Your task to perform on an android device: Search for the new Nintendo switch on Walmart. Image 0: 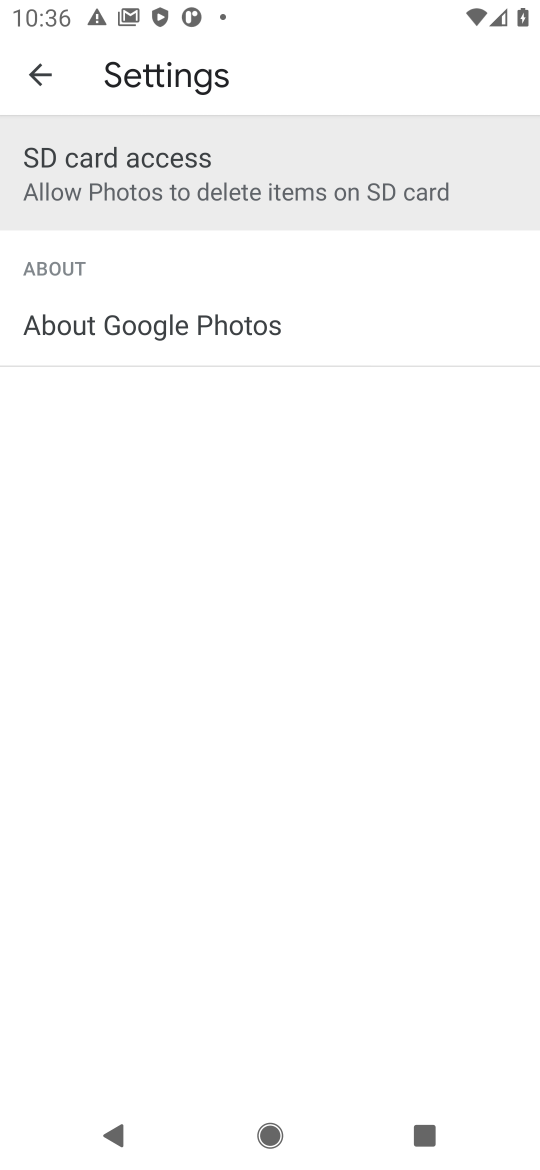
Step 0: press home button
Your task to perform on an android device: Search for the new Nintendo switch on Walmart. Image 1: 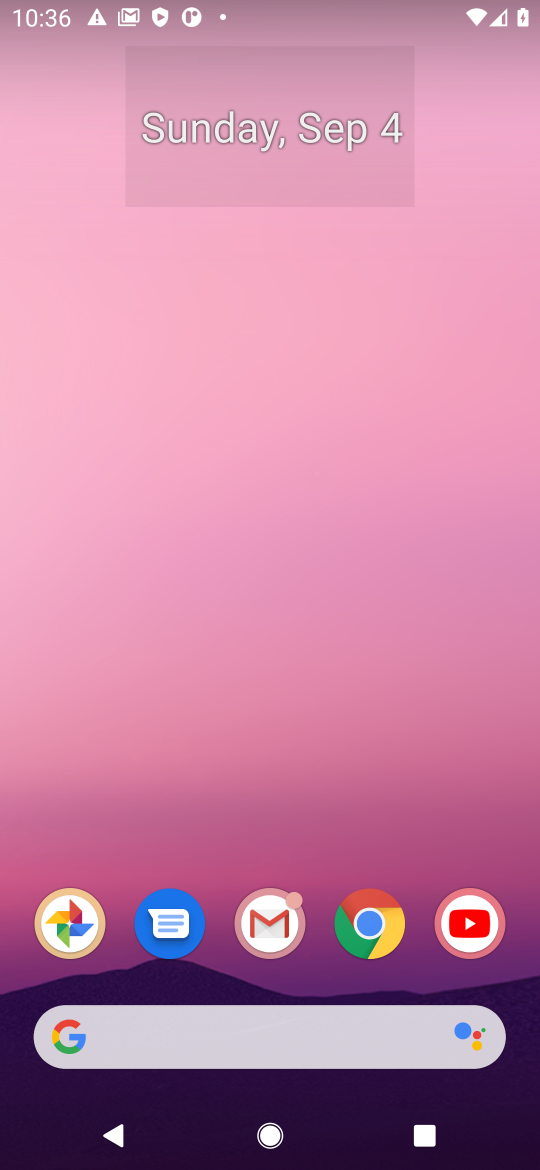
Step 1: click (386, 1038)
Your task to perform on an android device: Search for the new Nintendo switch on Walmart. Image 2: 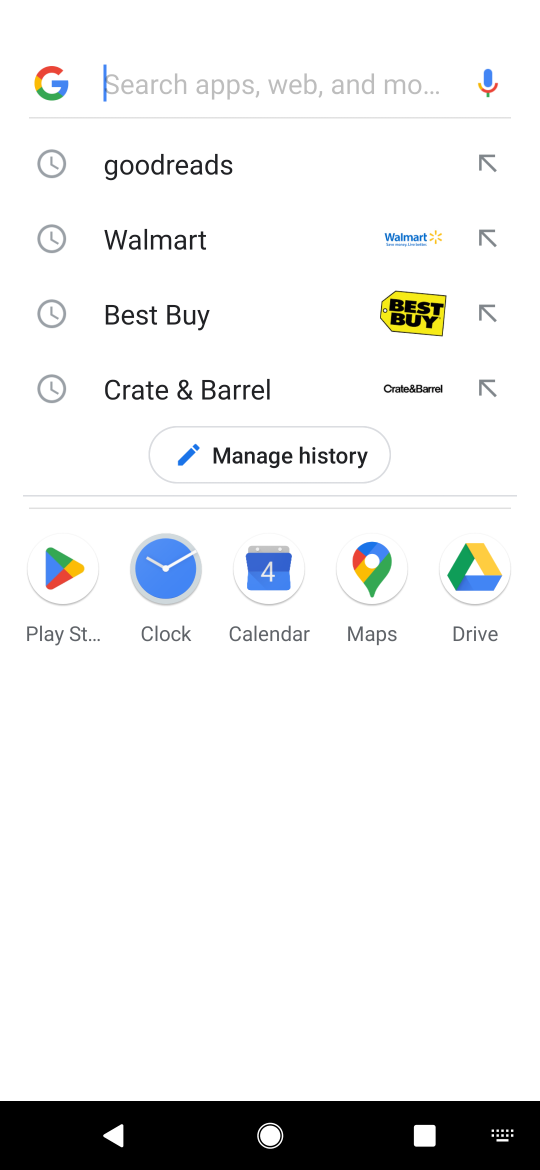
Step 2: press enter
Your task to perform on an android device: Search for the new Nintendo switch on Walmart. Image 3: 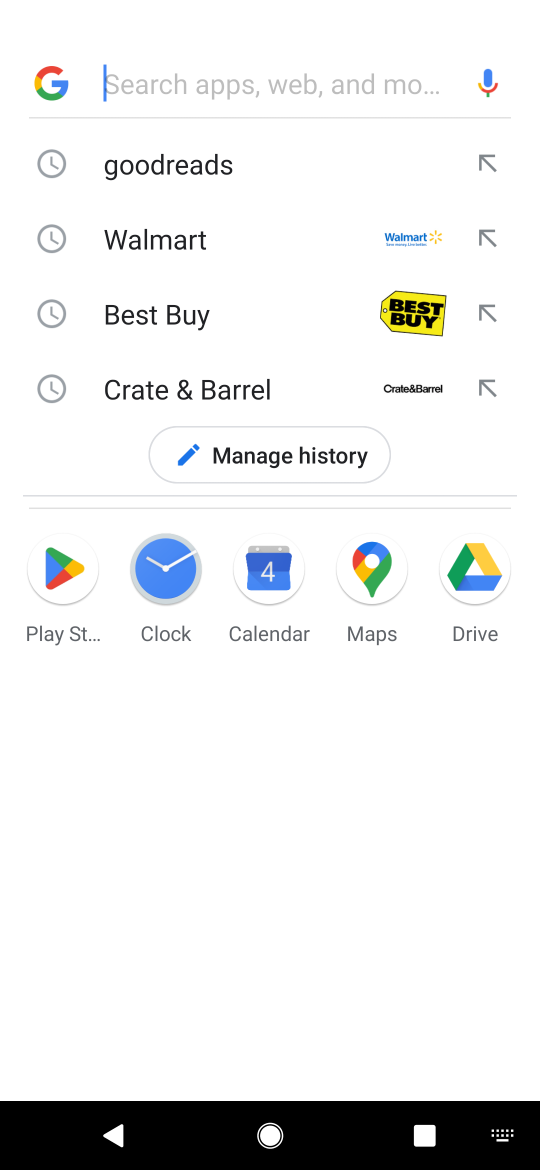
Step 3: type "walmart"
Your task to perform on an android device: Search for the new Nintendo switch on Walmart. Image 4: 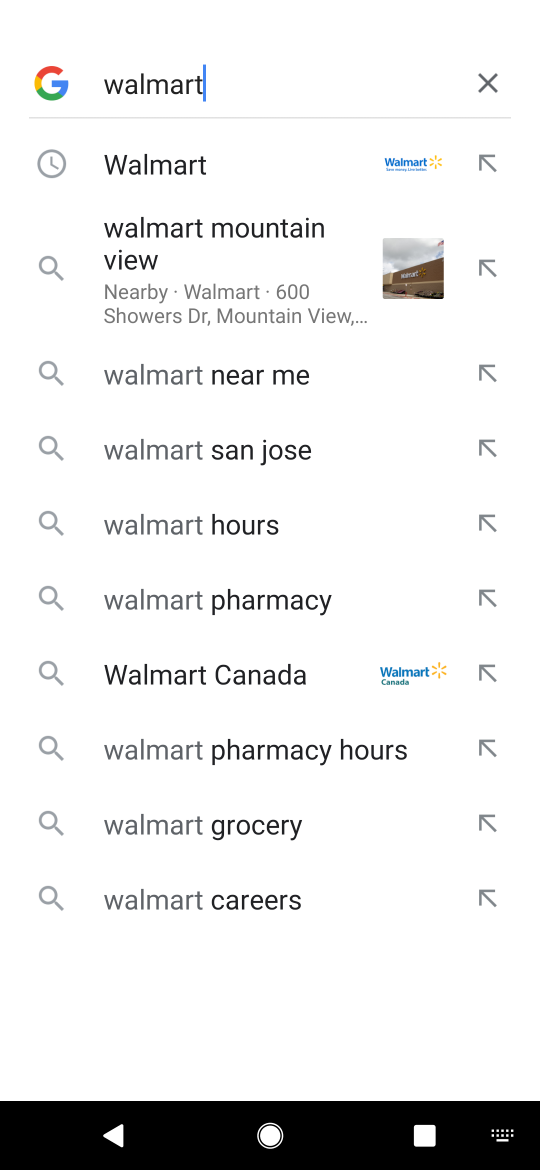
Step 4: click (150, 166)
Your task to perform on an android device: Search for the new Nintendo switch on Walmart. Image 5: 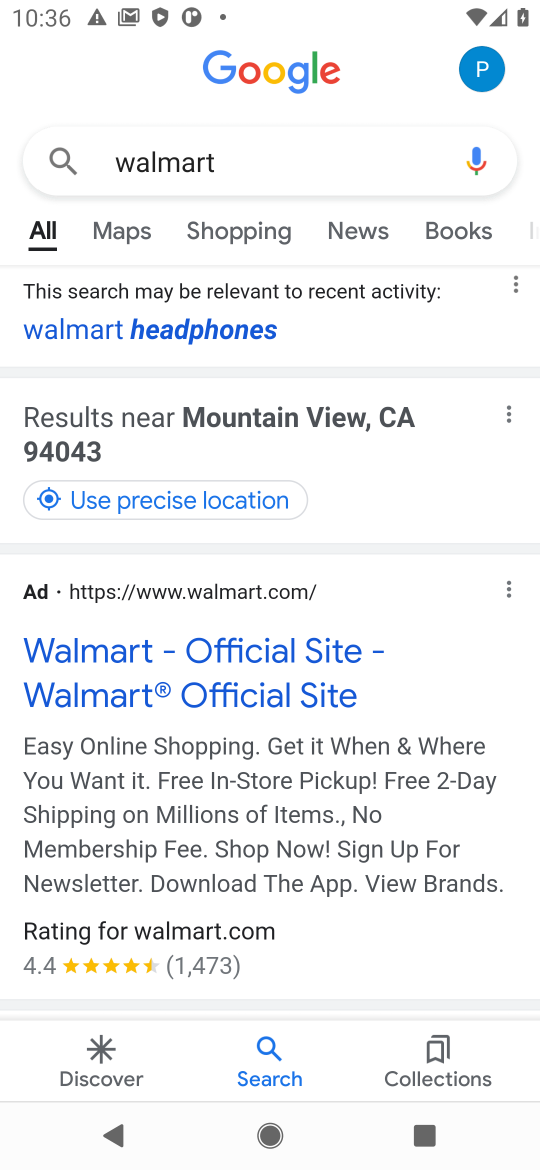
Step 5: click (161, 668)
Your task to perform on an android device: Search for the new Nintendo switch on Walmart. Image 6: 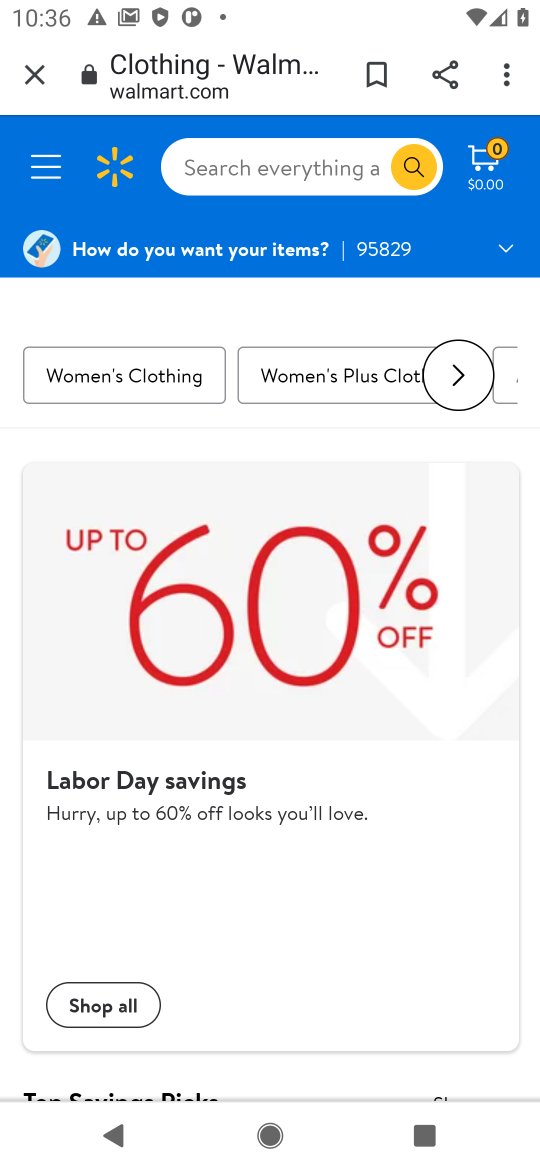
Step 6: click (260, 145)
Your task to perform on an android device: Search for the new Nintendo switch on Walmart. Image 7: 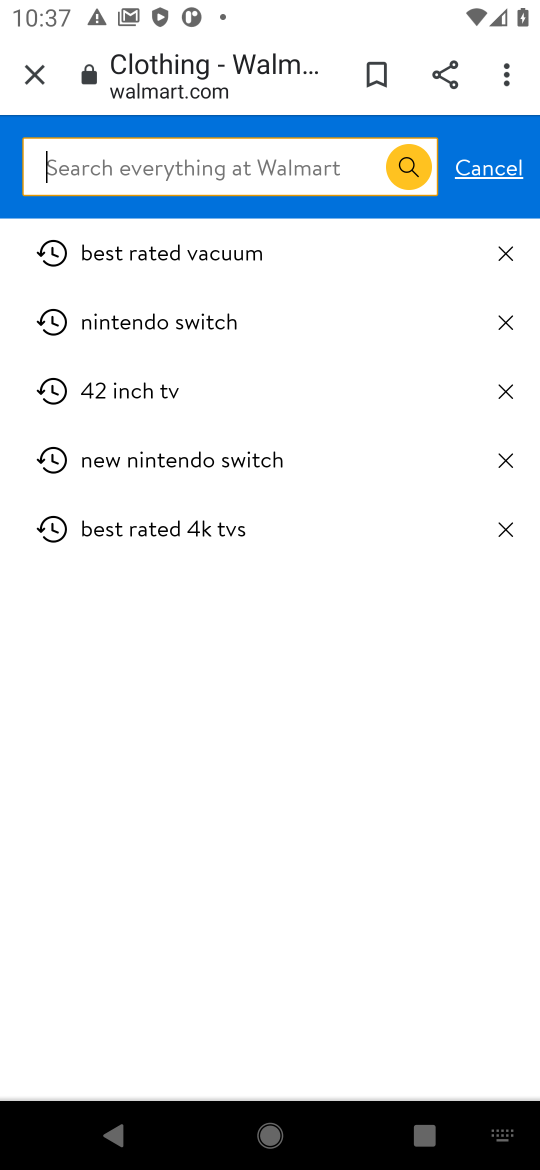
Step 7: press enter
Your task to perform on an android device: Search for the new Nintendo switch on Walmart. Image 8: 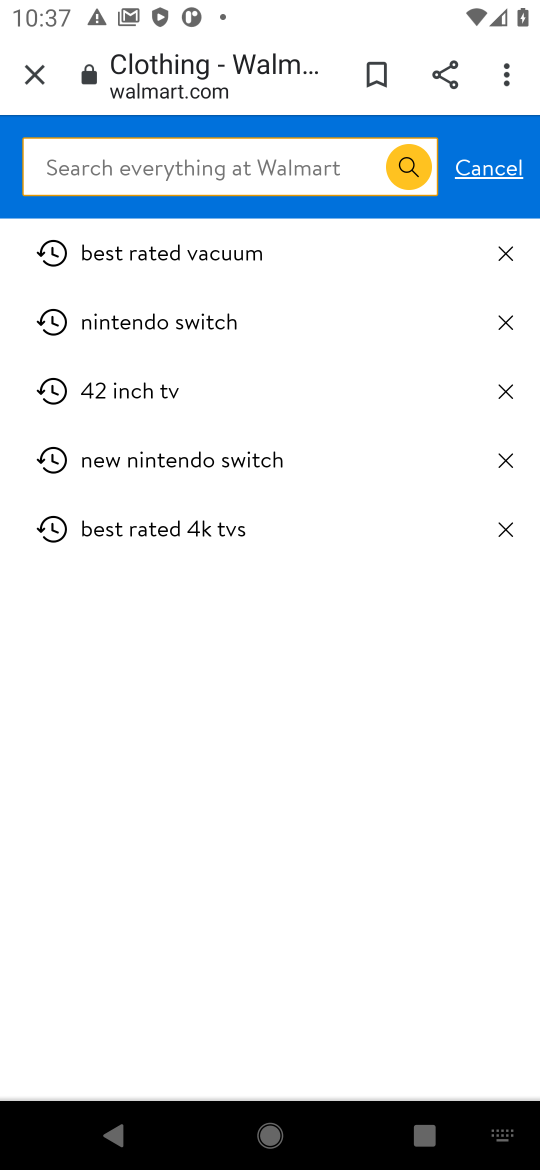
Step 8: type "new nintendo switch"
Your task to perform on an android device: Search for the new Nintendo switch on Walmart. Image 9: 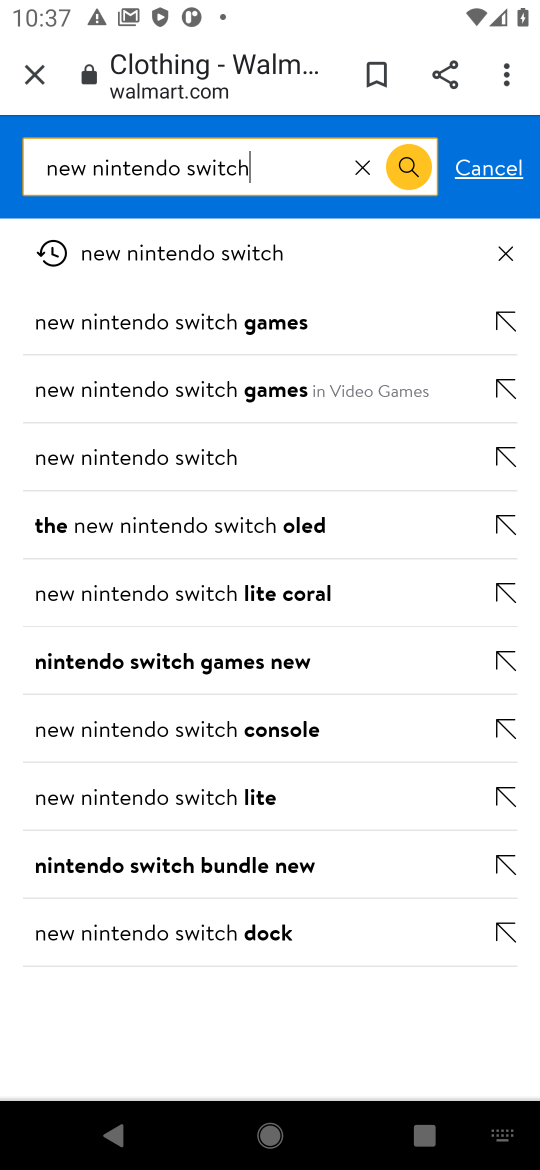
Step 9: click (263, 247)
Your task to perform on an android device: Search for the new Nintendo switch on Walmart. Image 10: 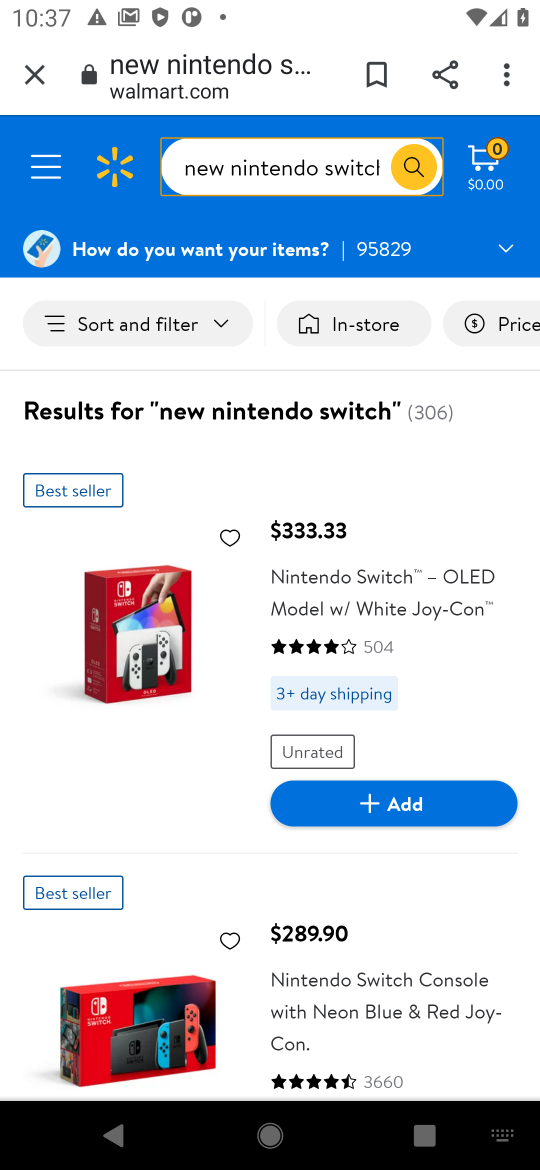
Step 10: task complete